Your task to perform on an android device: Check the weather Image 0: 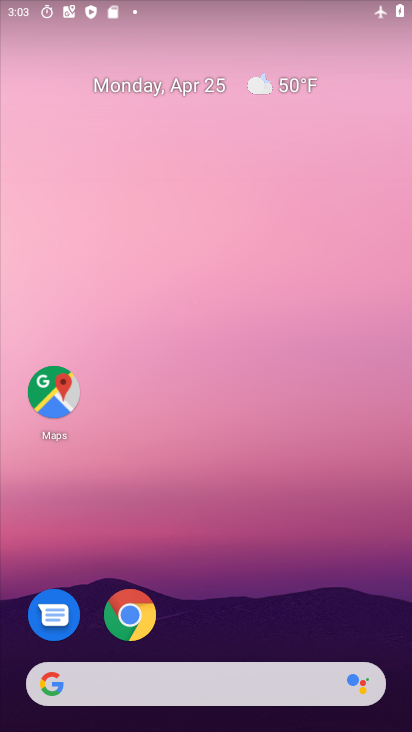
Step 0: click (255, 78)
Your task to perform on an android device: Check the weather Image 1: 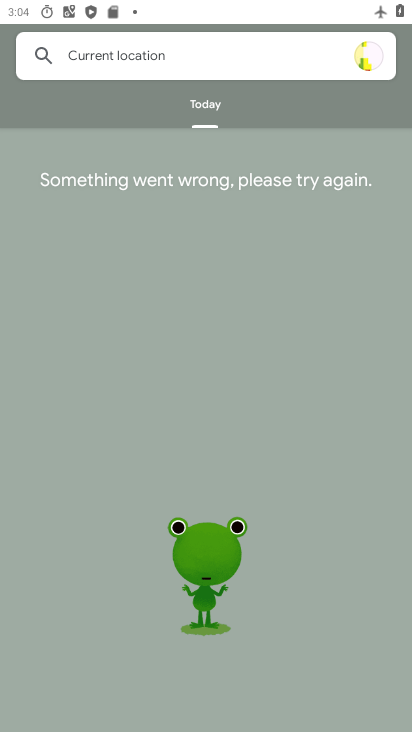
Step 1: task complete